Your task to perform on an android device: open chrome privacy settings Image 0: 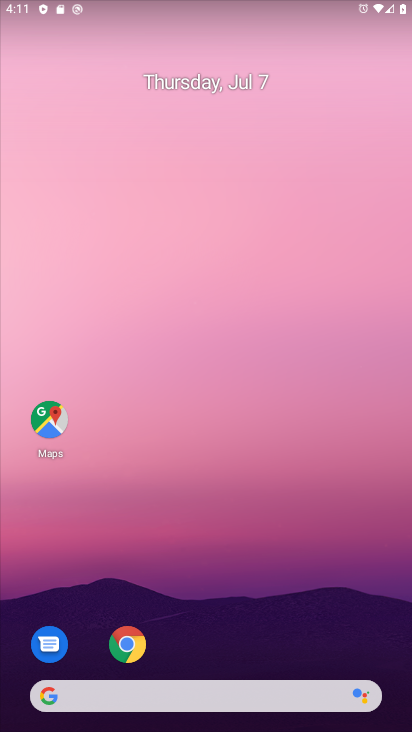
Step 0: click (128, 642)
Your task to perform on an android device: open chrome privacy settings Image 1: 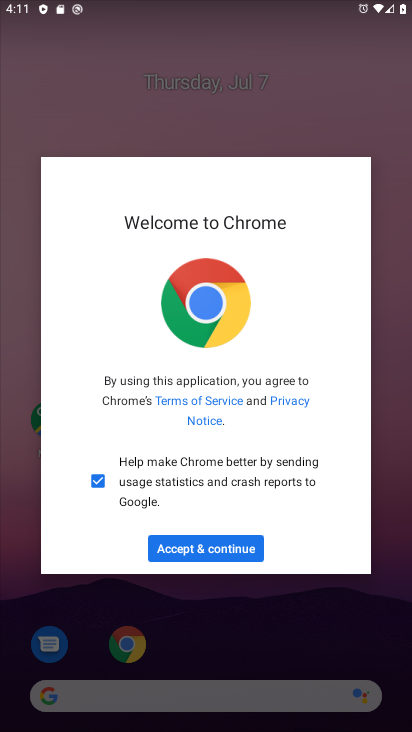
Step 1: click (195, 551)
Your task to perform on an android device: open chrome privacy settings Image 2: 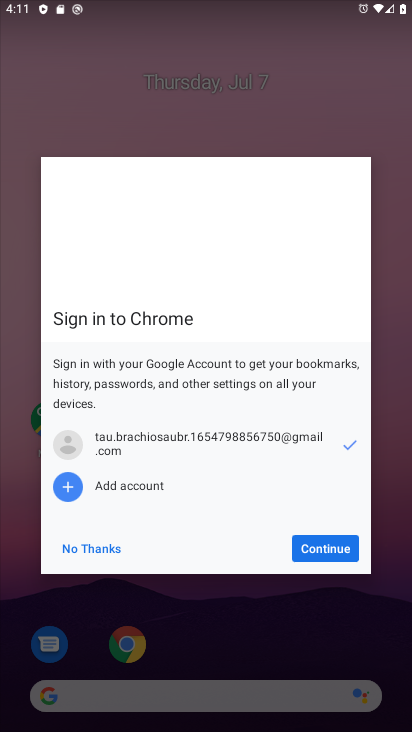
Step 2: click (311, 549)
Your task to perform on an android device: open chrome privacy settings Image 3: 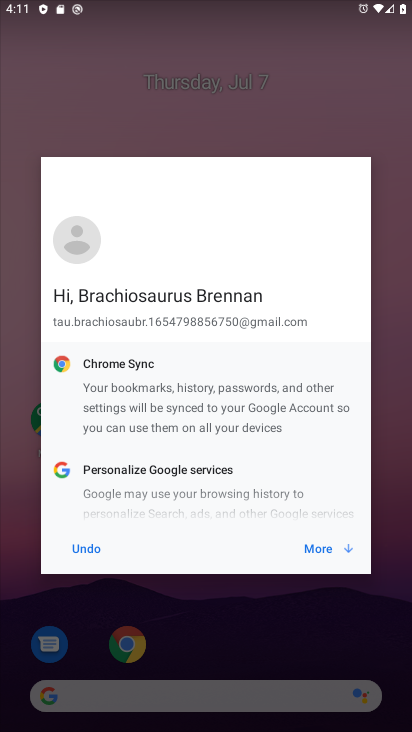
Step 3: click (311, 549)
Your task to perform on an android device: open chrome privacy settings Image 4: 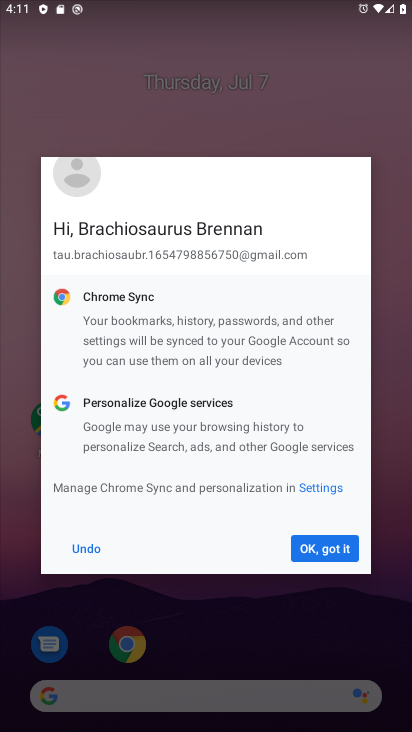
Step 4: click (311, 549)
Your task to perform on an android device: open chrome privacy settings Image 5: 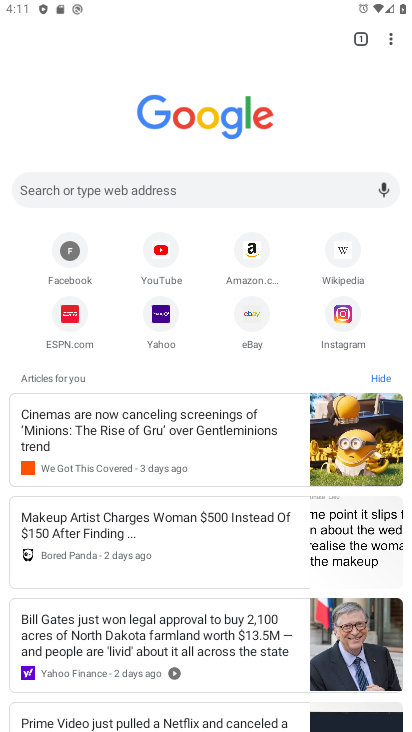
Step 5: click (390, 36)
Your task to perform on an android device: open chrome privacy settings Image 6: 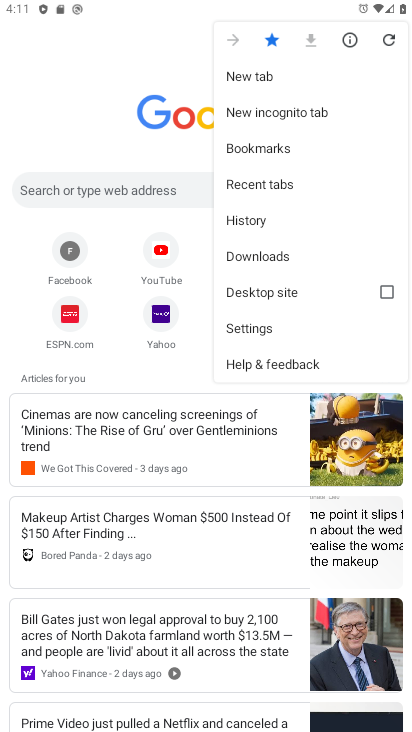
Step 6: click (258, 326)
Your task to perform on an android device: open chrome privacy settings Image 7: 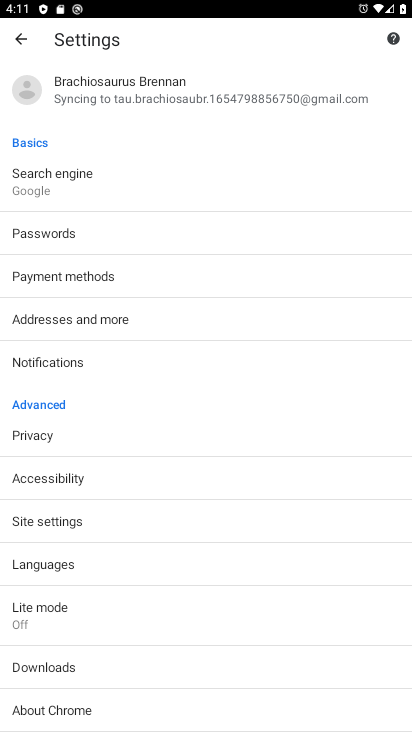
Step 7: click (46, 436)
Your task to perform on an android device: open chrome privacy settings Image 8: 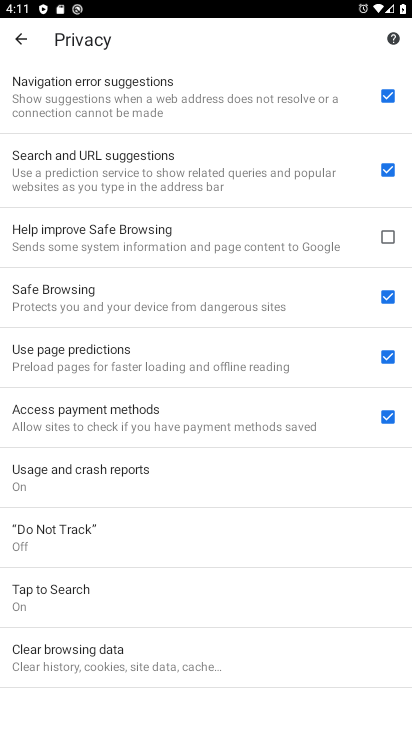
Step 8: task complete